Your task to perform on an android device: change the clock display to show seconds Image 0: 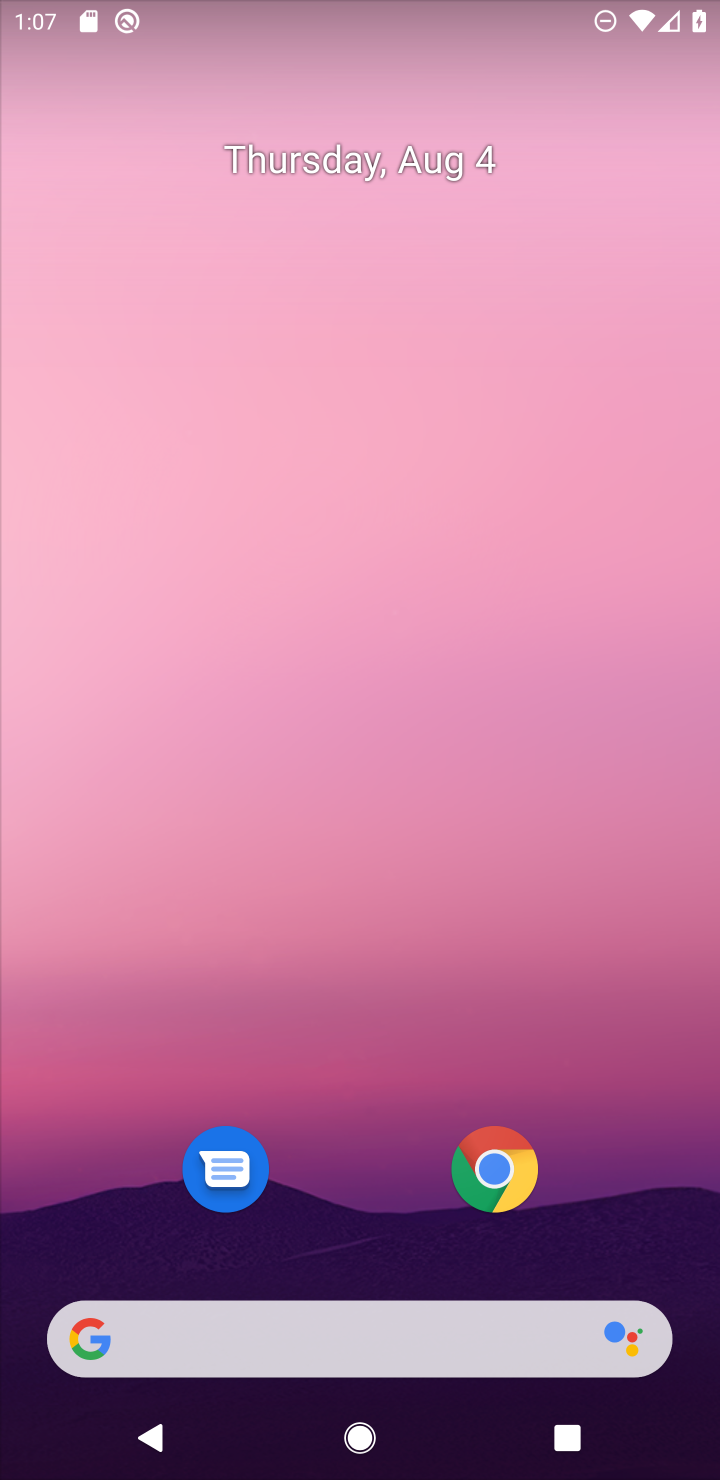
Step 0: drag from (358, 748) to (262, 32)
Your task to perform on an android device: change the clock display to show seconds Image 1: 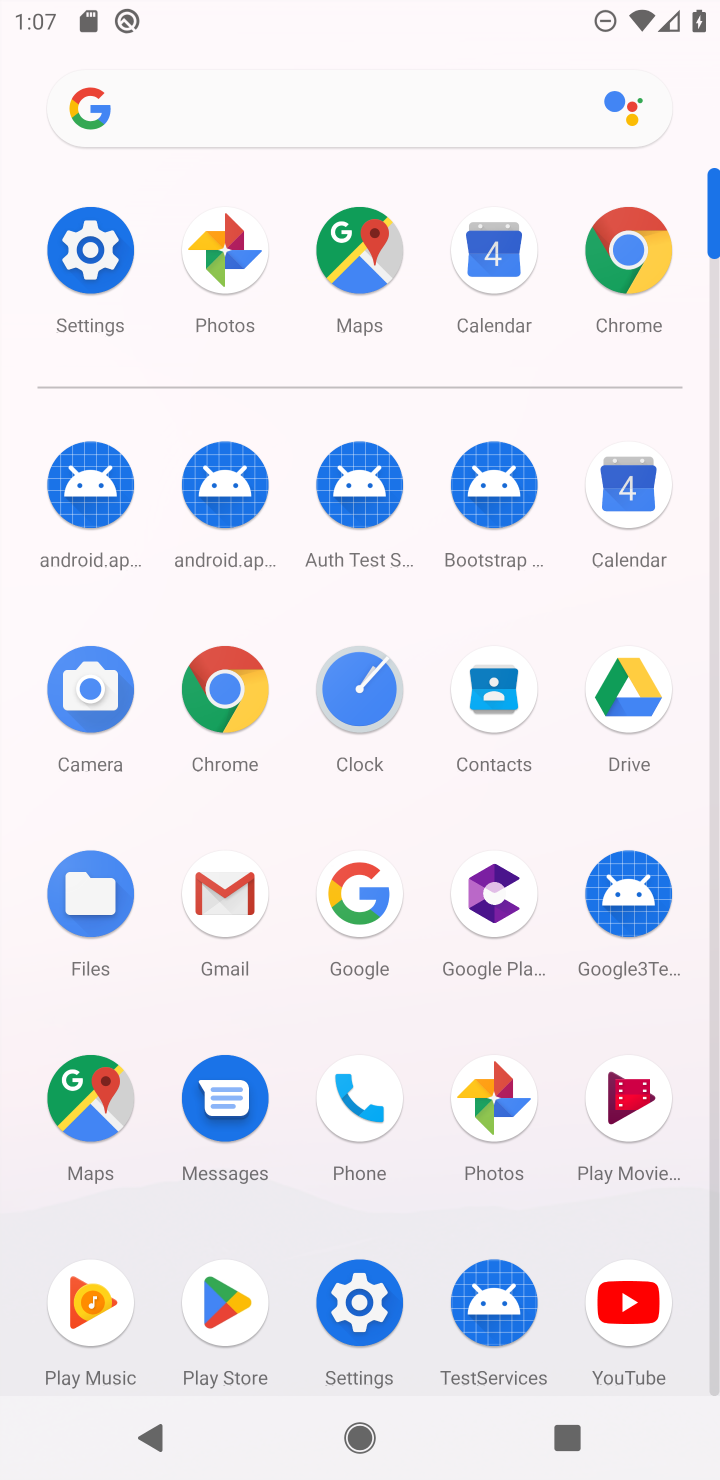
Step 1: click (350, 703)
Your task to perform on an android device: change the clock display to show seconds Image 2: 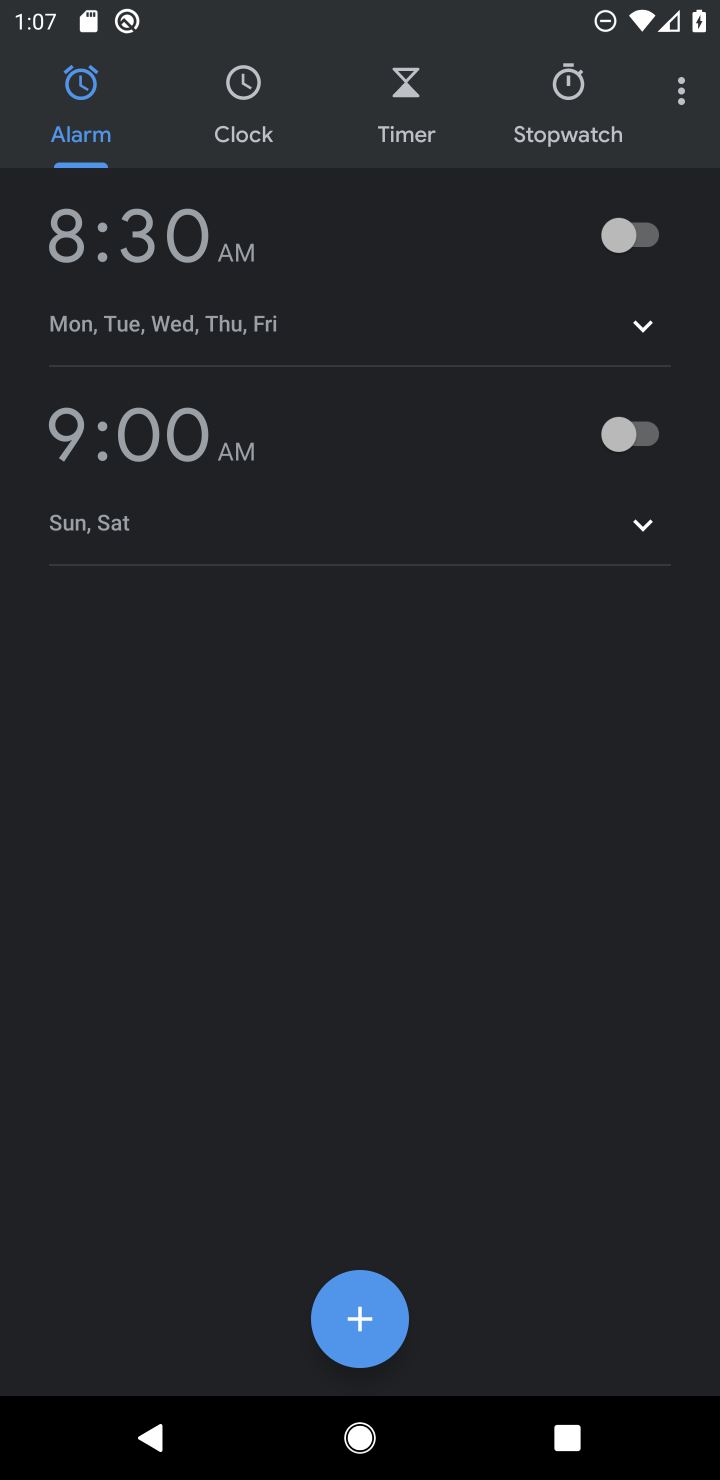
Step 2: click (689, 100)
Your task to perform on an android device: change the clock display to show seconds Image 3: 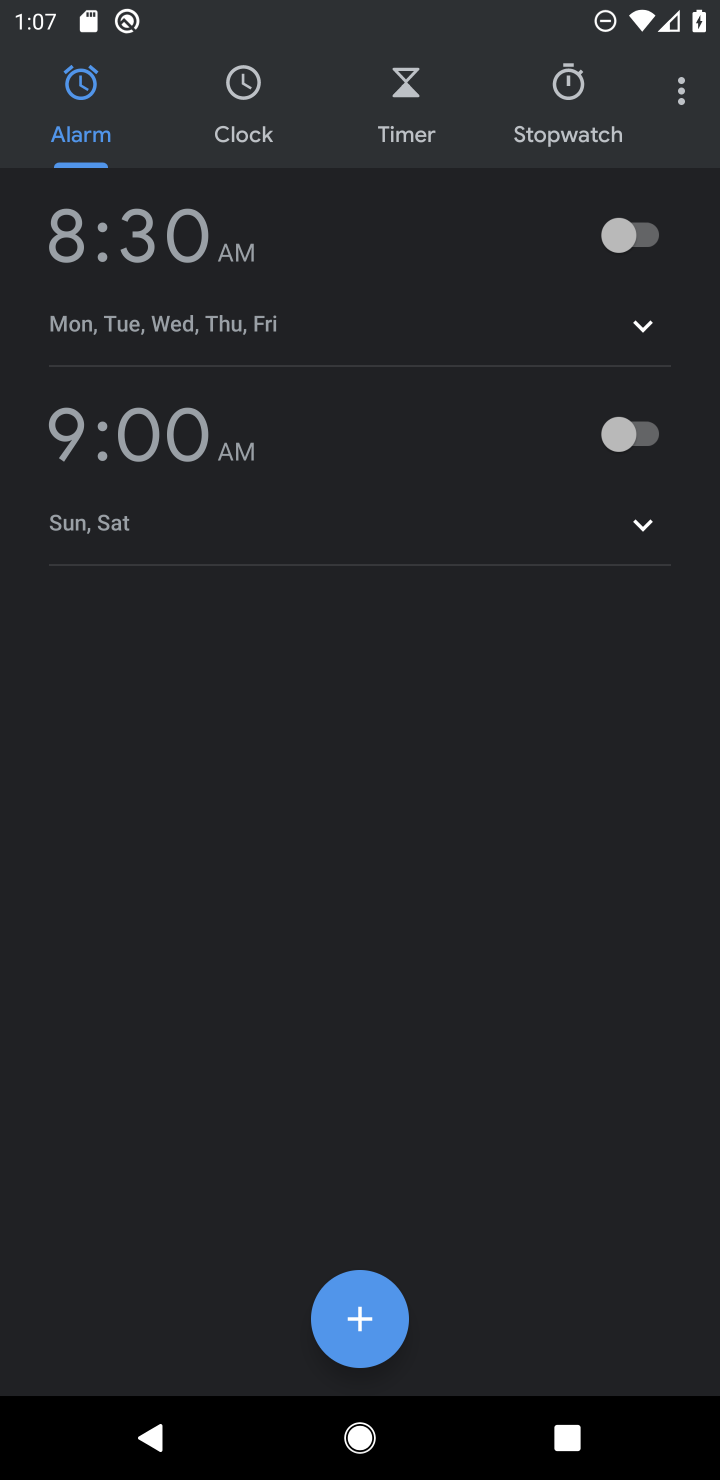
Step 3: click (684, 100)
Your task to perform on an android device: change the clock display to show seconds Image 4: 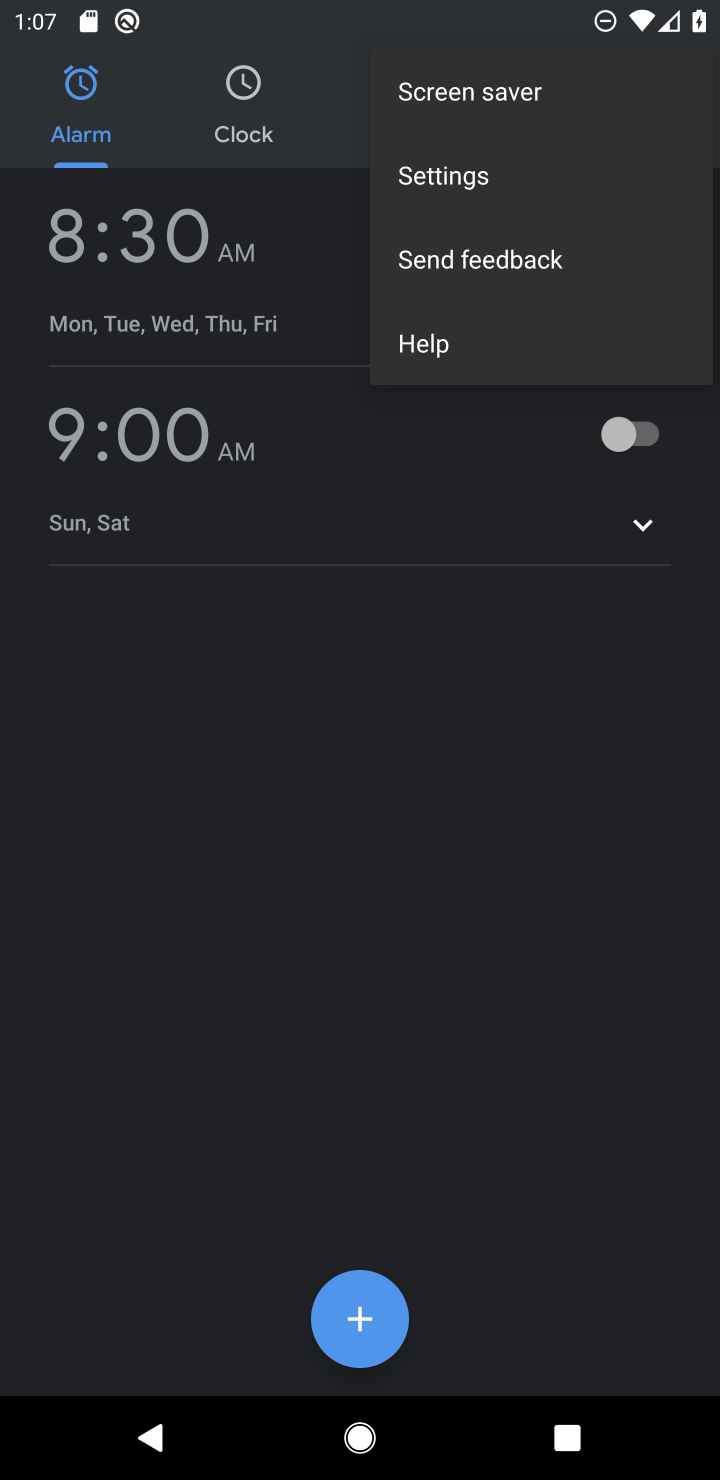
Step 4: click (430, 190)
Your task to perform on an android device: change the clock display to show seconds Image 5: 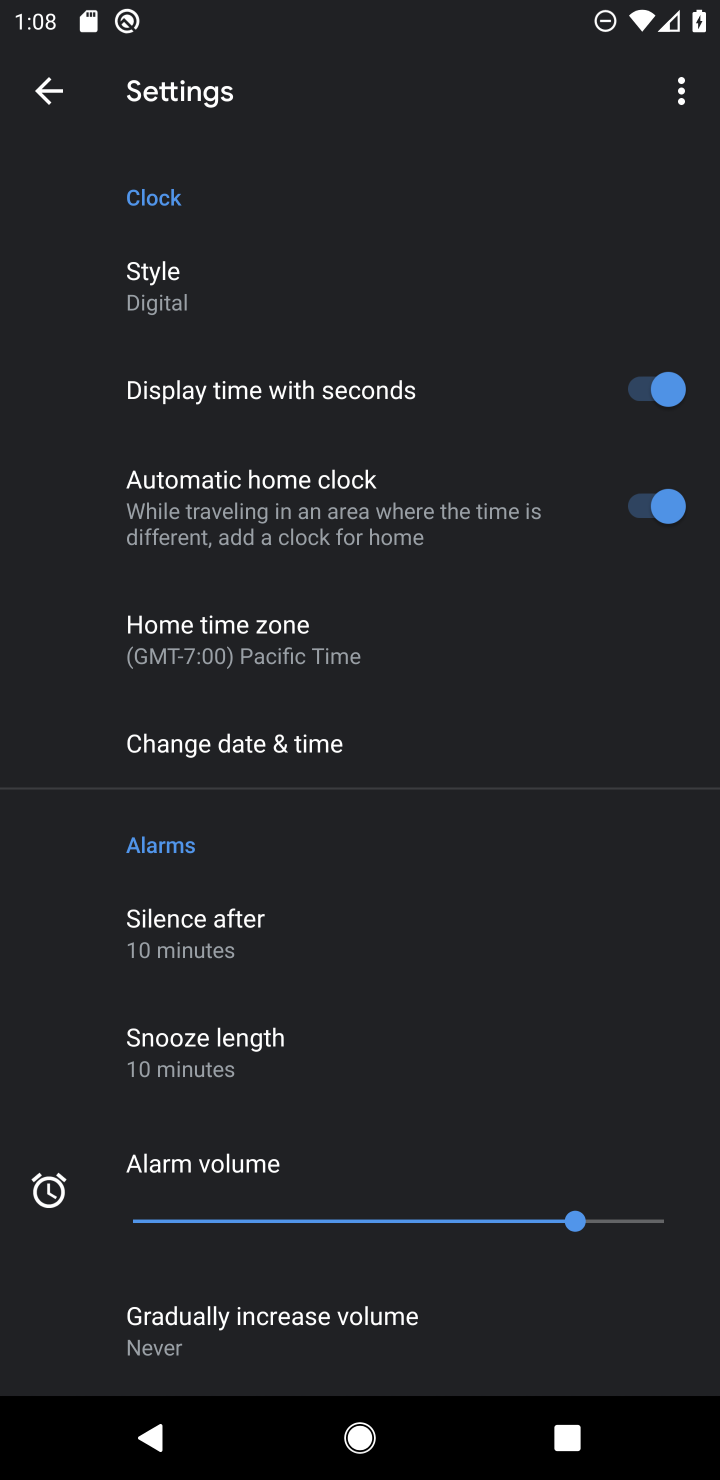
Step 5: task complete